Your task to perform on an android device: Open Google Maps and go to "Timeline" Image 0: 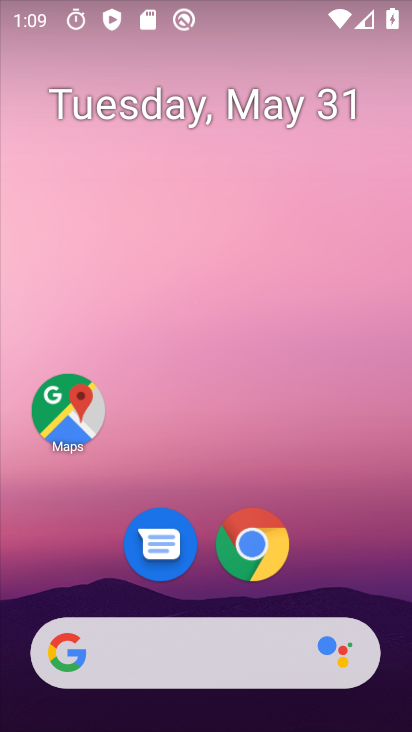
Step 0: click (76, 420)
Your task to perform on an android device: Open Google Maps and go to "Timeline" Image 1: 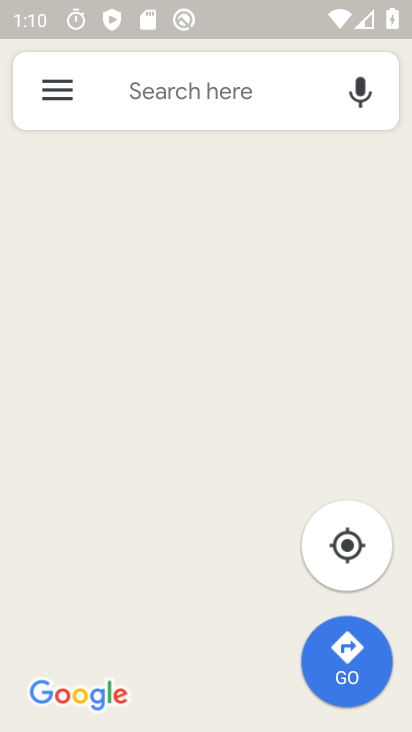
Step 1: click (58, 84)
Your task to perform on an android device: Open Google Maps and go to "Timeline" Image 2: 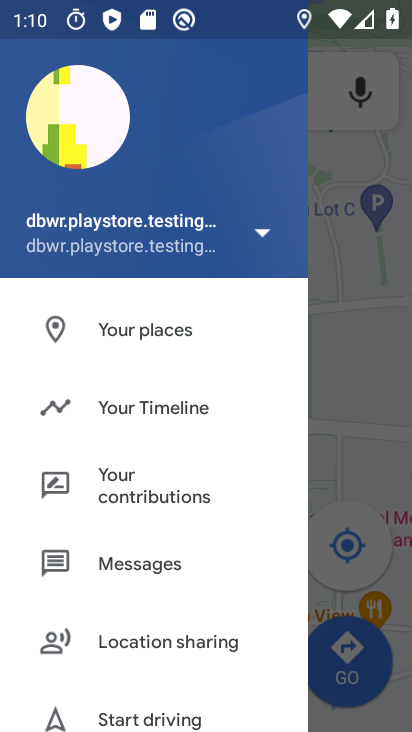
Step 2: click (175, 403)
Your task to perform on an android device: Open Google Maps and go to "Timeline" Image 3: 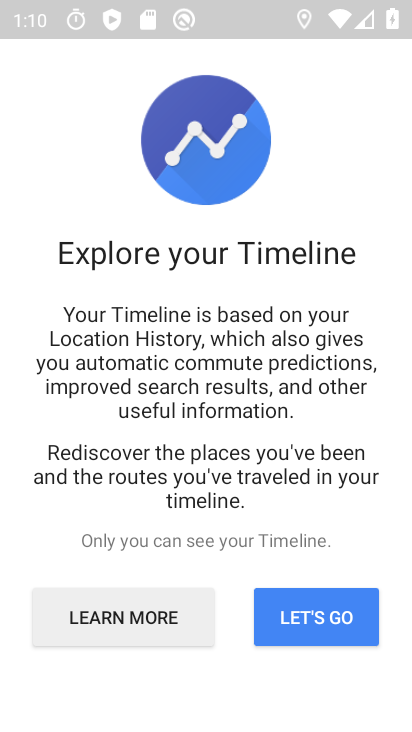
Step 3: task complete